Your task to perform on an android device: Go to Google Image 0: 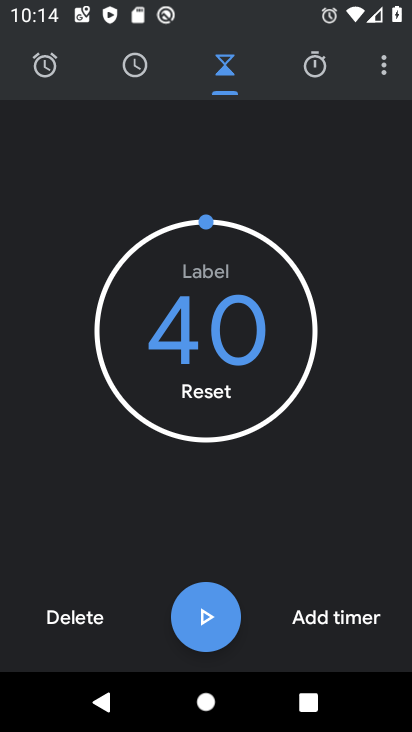
Step 0: press home button
Your task to perform on an android device: Go to Google Image 1: 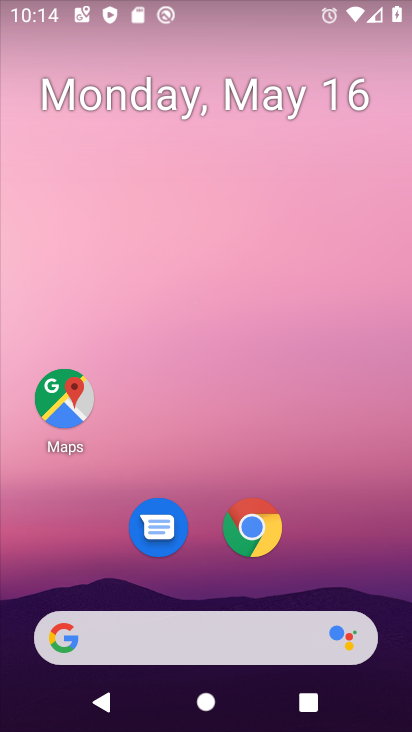
Step 1: drag from (362, 568) to (325, 29)
Your task to perform on an android device: Go to Google Image 2: 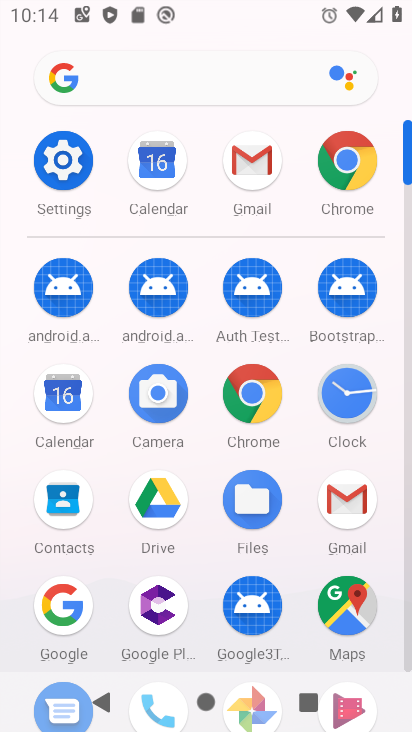
Step 2: click (64, 611)
Your task to perform on an android device: Go to Google Image 3: 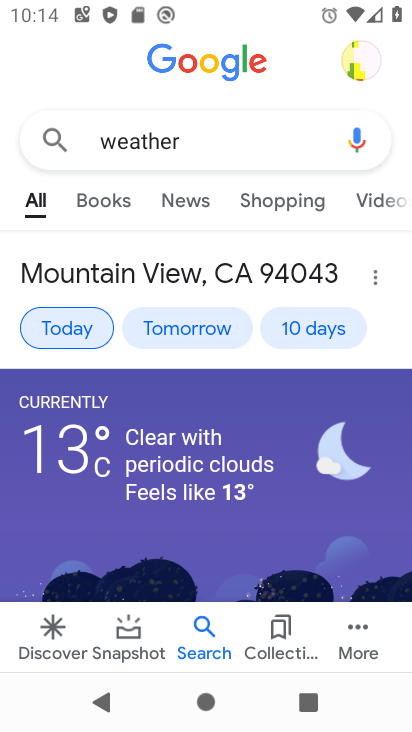
Step 3: task complete